Your task to perform on an android device: set the stopwatch Image 0: 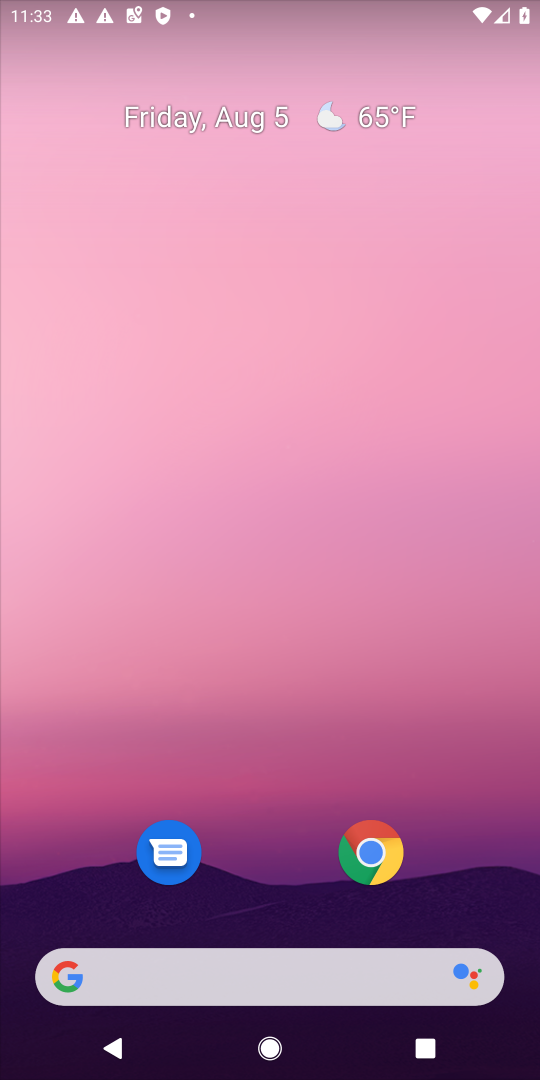
Step 0: drag from (327, 973) to (212, 203)
Your task to perform on an android device: set the stopwatch Image 1: 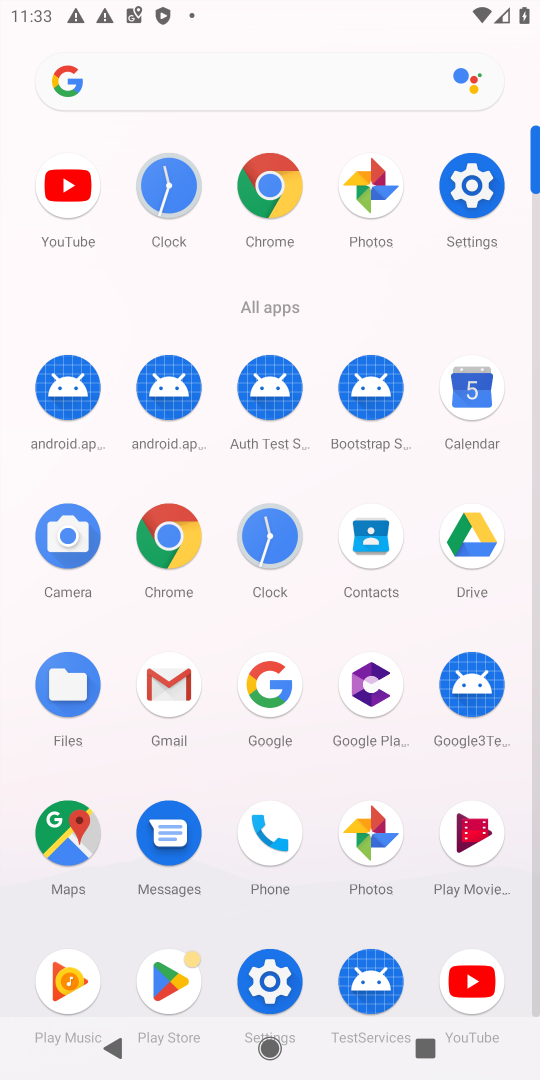
Step 1: click (162, 201)
Your task to perform on an android device: set the stopwatch Image 2: 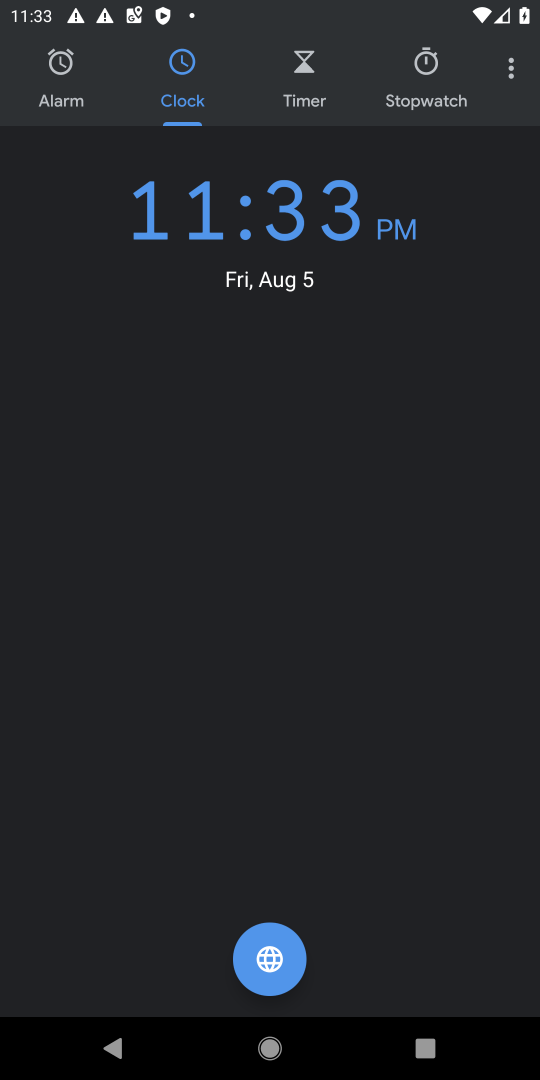
Step 2: click (417, 74)
Your task to perform on an android device: set the stopwatch Image 3: 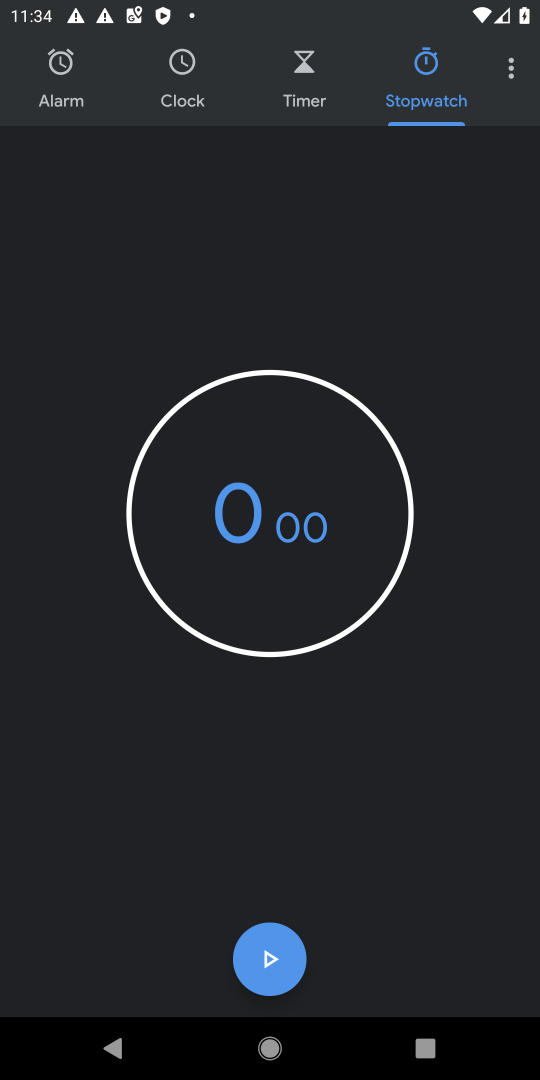
Step 3: task complete